Your task to perform on an android device: turn on airplane mode Image 0: 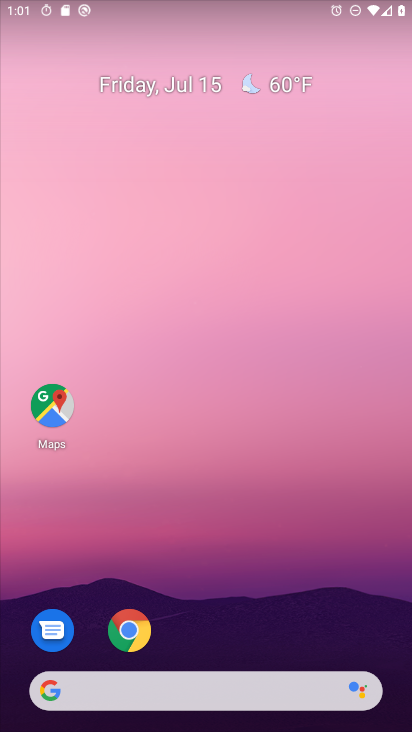
Step 0: drag from (207, 551) to (211, 285)
Your task to perform on an android device: turn on airplane mode Image 1: 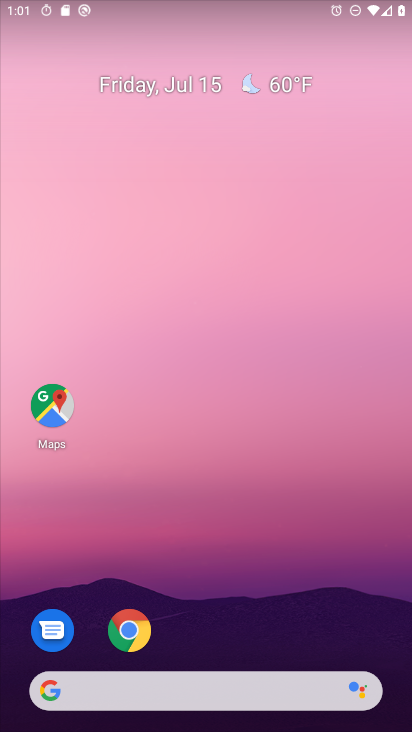
Step 1: drag from (198, 376) to (184, 56)
Your task to perform on an android device: turn on airplane mode Image 2: 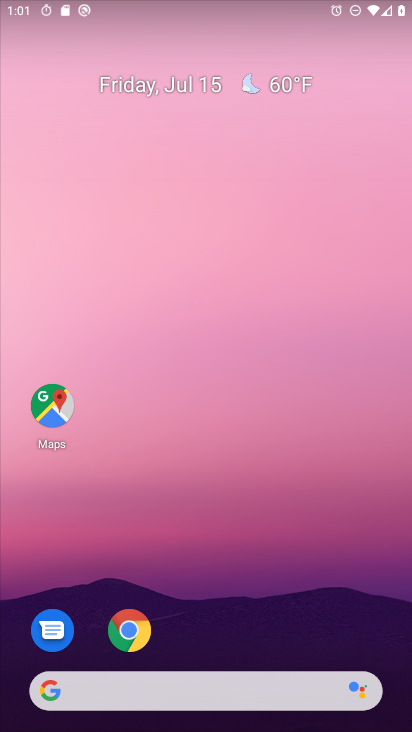
Step 2: drag from (171, 381) to (171, 181)
Your task to perform on an android device: turn on airplane mode Image 3: 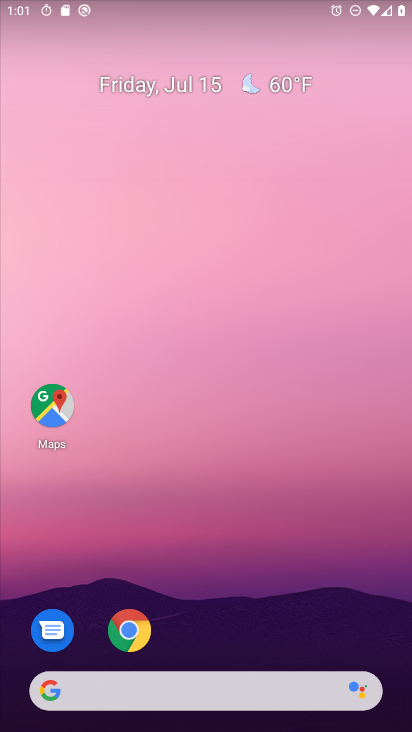
Step 3: drag from (199, 521) to (193, 252)
Your task to perform on an android device: turn on airplane mode Image 4: 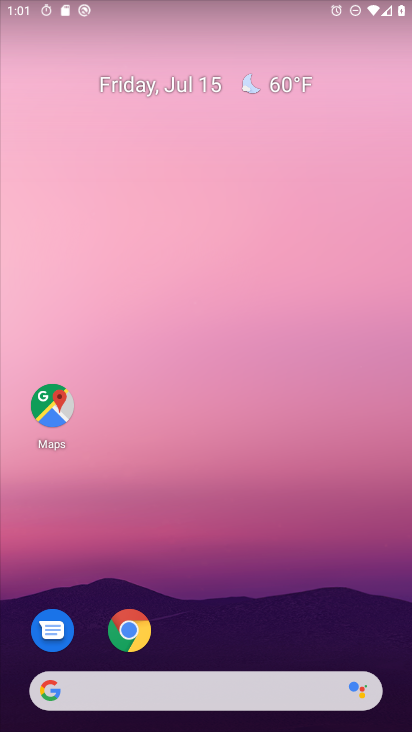
Step 4: drag from (215, 490) to (225, 64)
Your task to perform on an android device: turn on airplane mode Image 5: 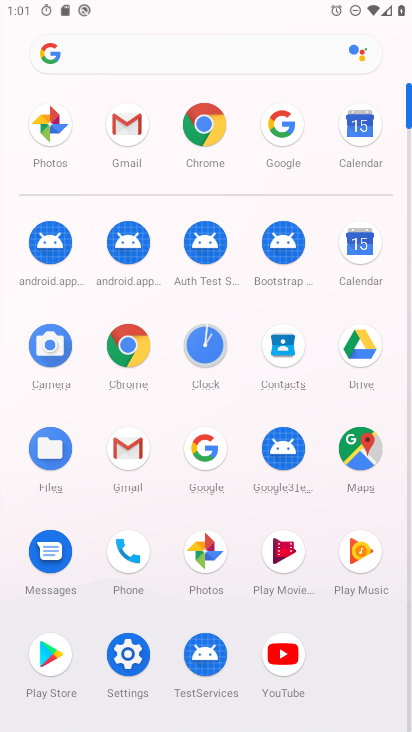
Step 5: click (129, 645)
Your task to perform on an android device: turn on airplane mode Image 6: 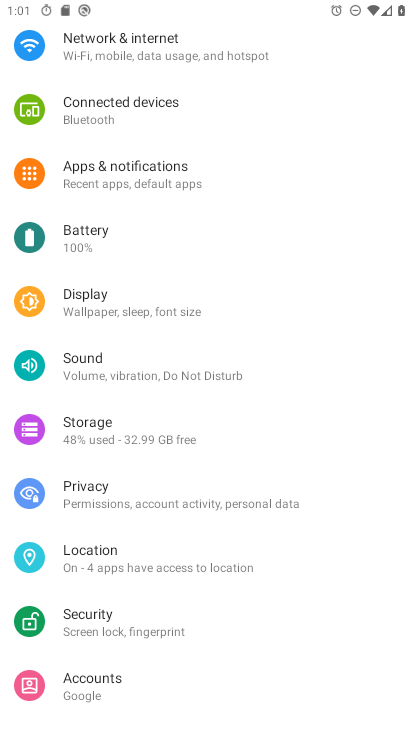
Step 6: click (159, 36)
Your task to perform on an android device: turn on airplane mode Image 7: 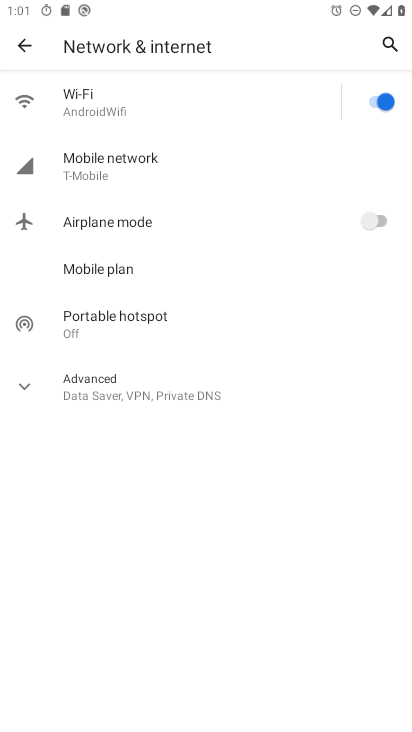
Step 7: click (378, 236)
Your task to perform on an android device: turn on airplane mode Image 8: 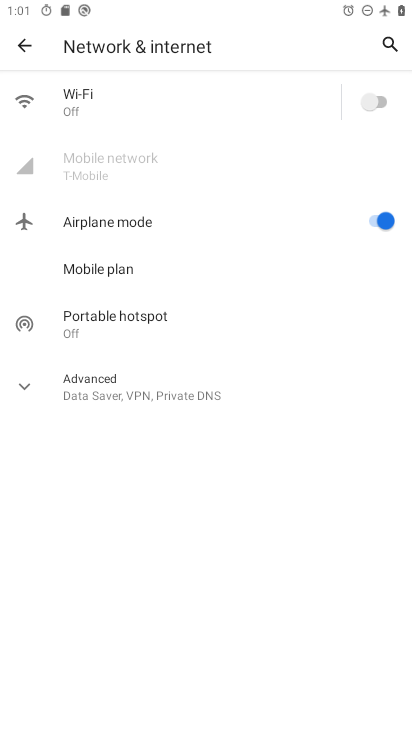
Step 8: task complete